Your task to perform on an android device: Open Youtube and go to "Your channel" Image 0: 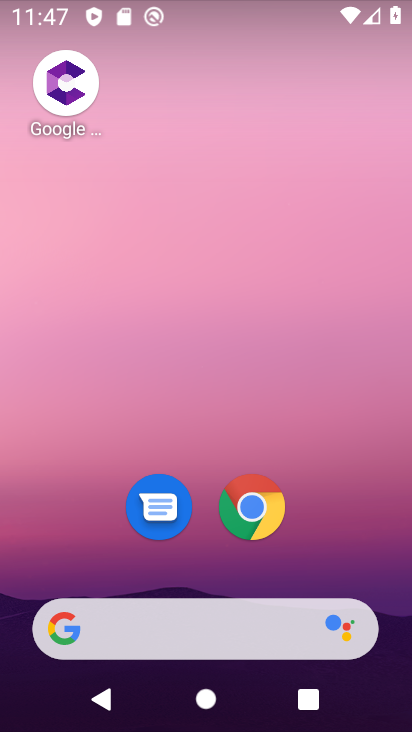
Step 0: drag from (338, 551) to (342, 147)
Your task to perform on an android device: Open Youtube and go to "Your channel" Image 1: 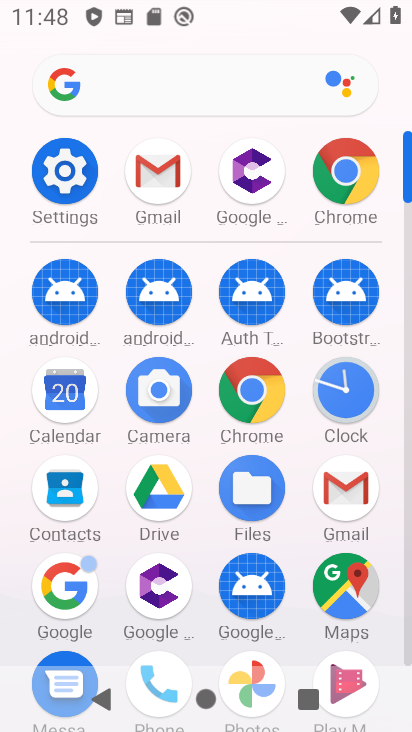
Step 1: drag from (192, 511) to (201, 298)
Your task to perform on an android device: Open Youtube and go to "Your channel" Image 2: 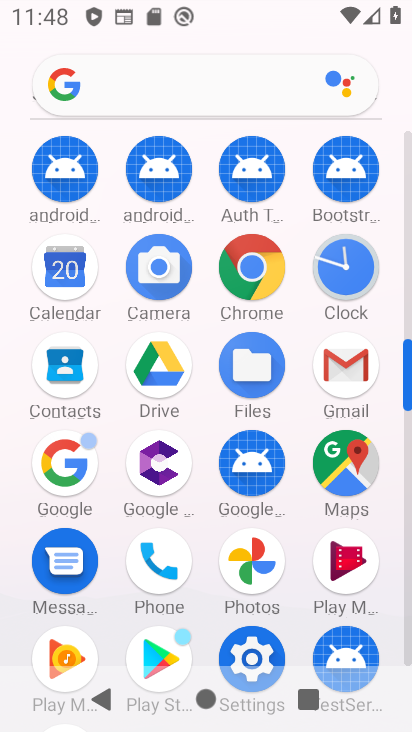
Step 2: drag from (204, 580) to (212, 282)
Your task to perform on an android device: Open Youtube and go to "Your channel" Image 3: 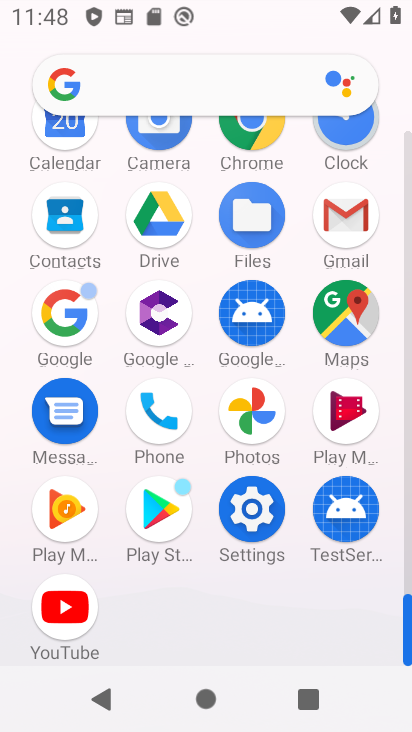
Step 3: click (67, 624)
Your task to perform on an android device: Open Youtube and go to "Your channel" Image 4: 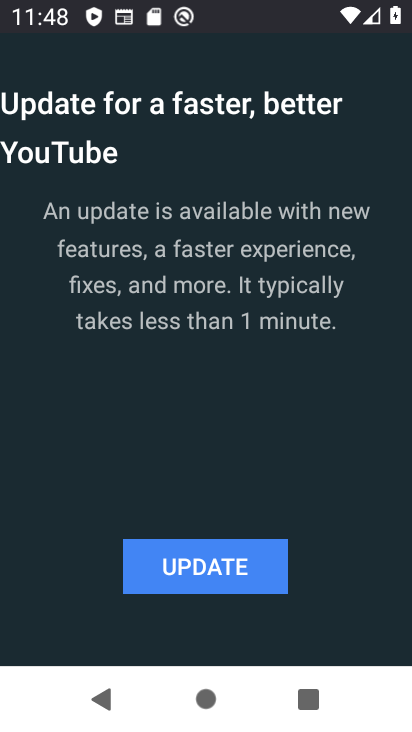
Step 4: click (235, 565)
Your task to perform on an android device: Open Youtube and go to "Your channel" Image 5: 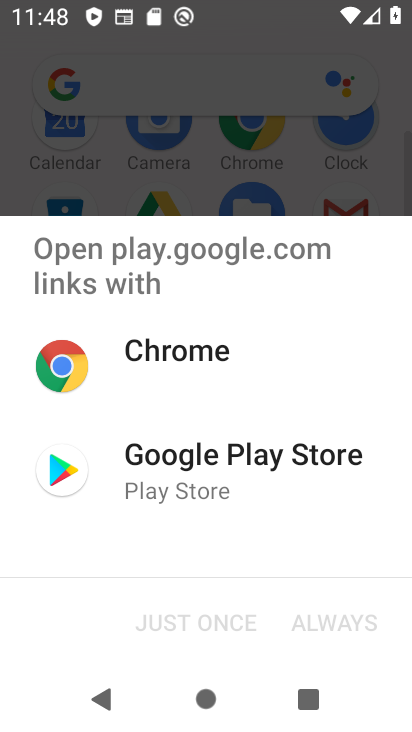
Step 5: click (230, 505)
Your task to perform on an android device: Open Youtube and go to "Your channel" Image 6: 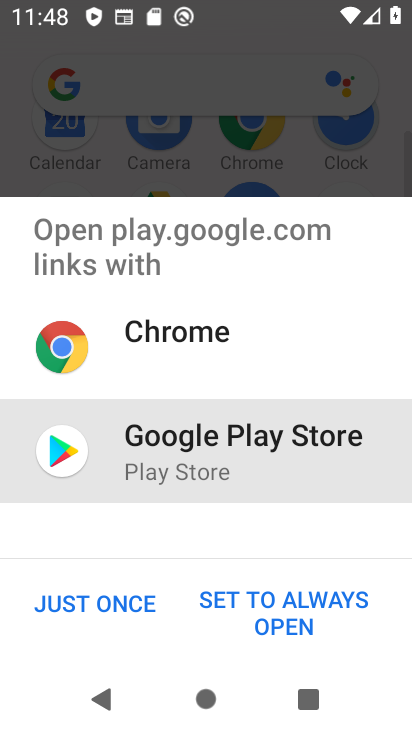
Step 6: click (101, 609)
Your task to perform on an android device: Open Youtube and go to "Your channel" Image 7: 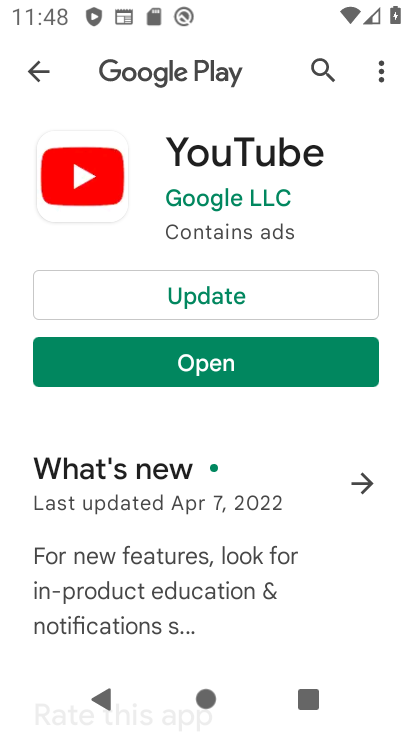
Step 7: click (251, 295)
Your task to perform on an android device: Open Youtube and go to "Your channel" Image 8: 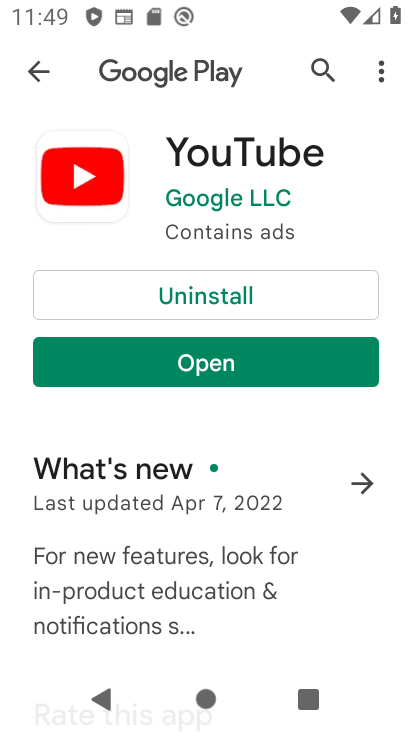
Step 8: click (269, 356)
Your task to perform on an android device: Open Youtube and go to "Your channel" Image 9: 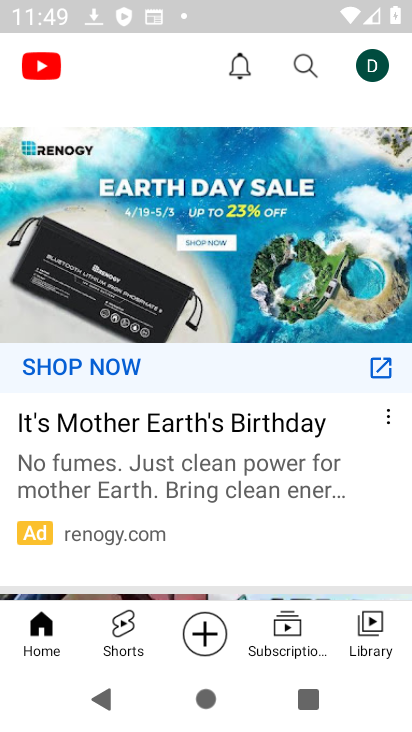
Step 9: click (380, 69)
Your task to perform on an android device: Open Youtube and go to "Your channel" Image 10: 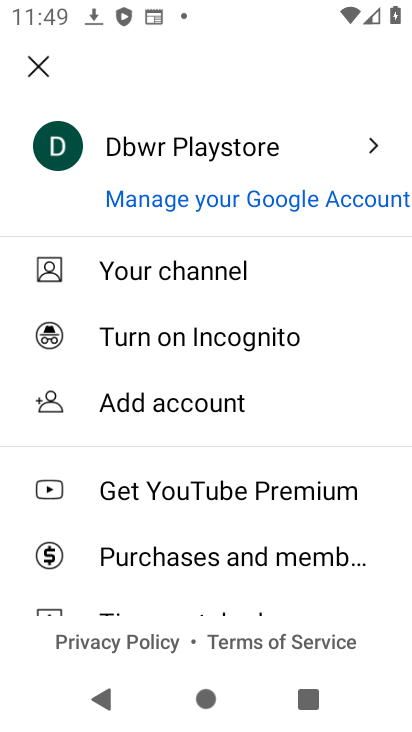
Step 10: click (199, 278)
Your task to perform on an android device: Open Youtube and go to "Your channel" Image 11: 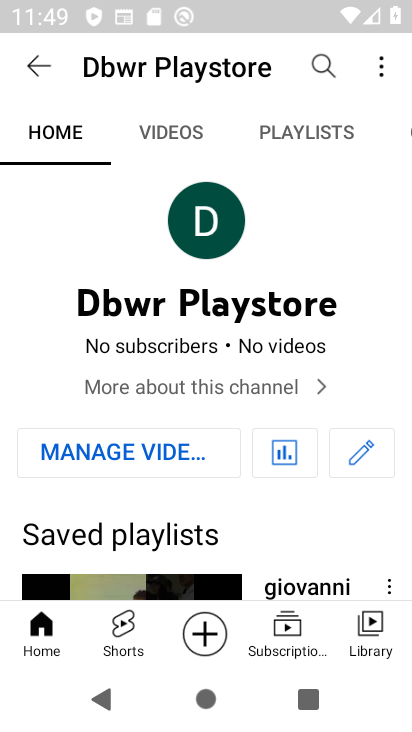
Step 11: task complete